Your task to perform on an android device: change keyboard looks Image 0: 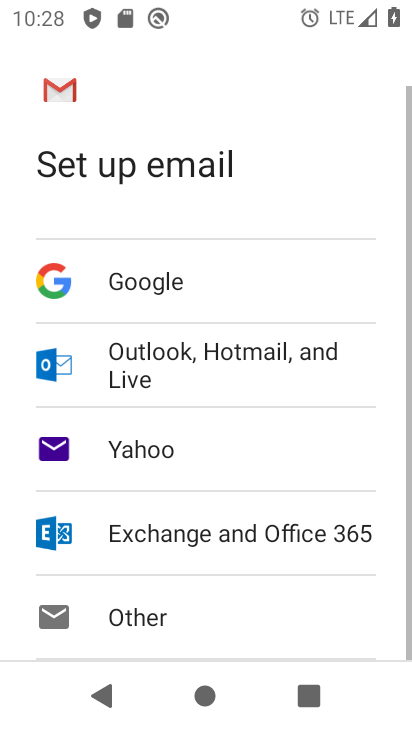
Step 0: press home button
Your task to perform on an android device: change keyboard looks Image 1: 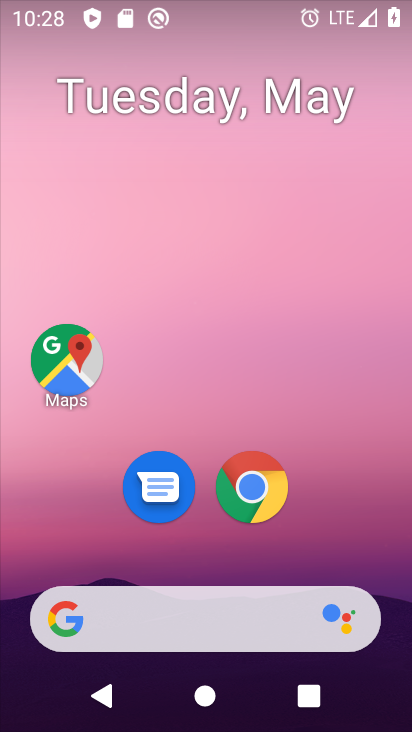
Step 1: drag from (214, 551) to (215, 231)
Your task to perform on an android device: change keyboard looks Image 2: 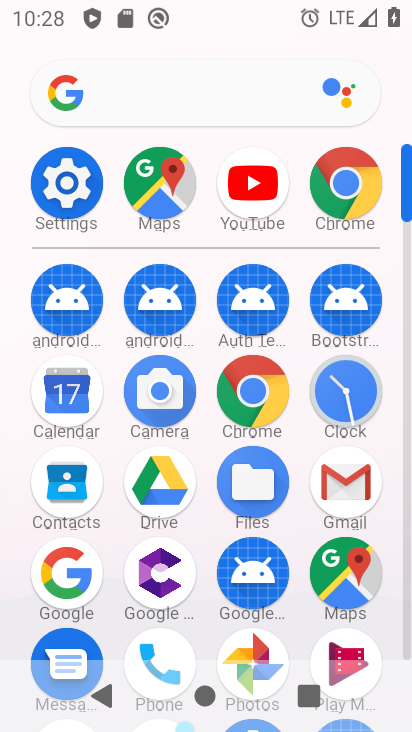
Step 2: click (56, 205)
Your task to perform on an android device: change keyboard looks Image 3: 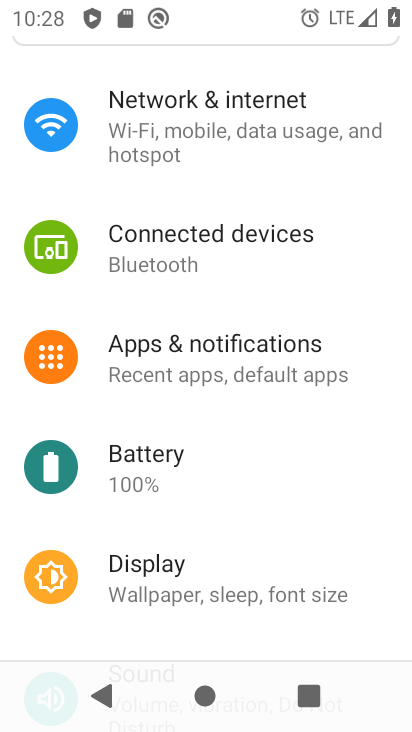
Step 3: drag from (214, 533) to (327, 10)
Your task to perform on an android device: change keyboard looks Image 4: 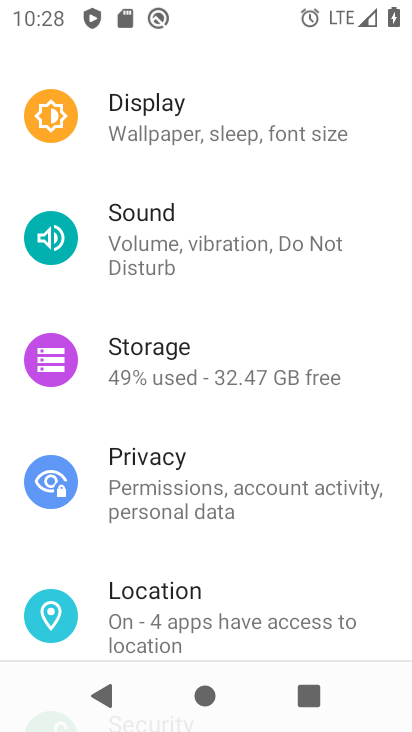
Step 4: drag from (186, 603) to (288, 13)
Your task to perform on an android device: change keyboard looks Image 5: 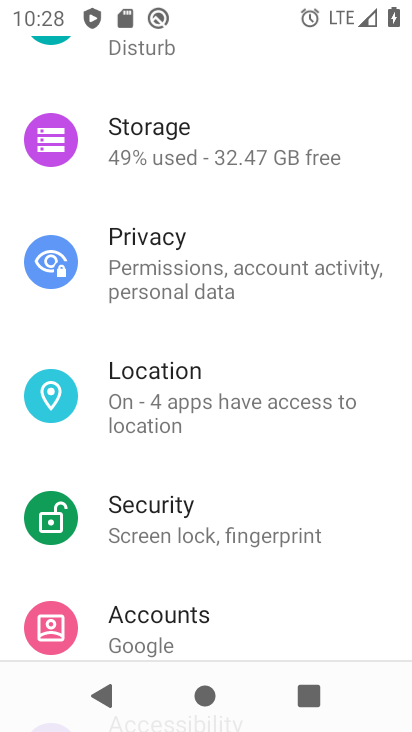
Step 5: drag from (186, 553) to (274, 60)
Your task to perform on an android device: change keyboard looks Image 6: 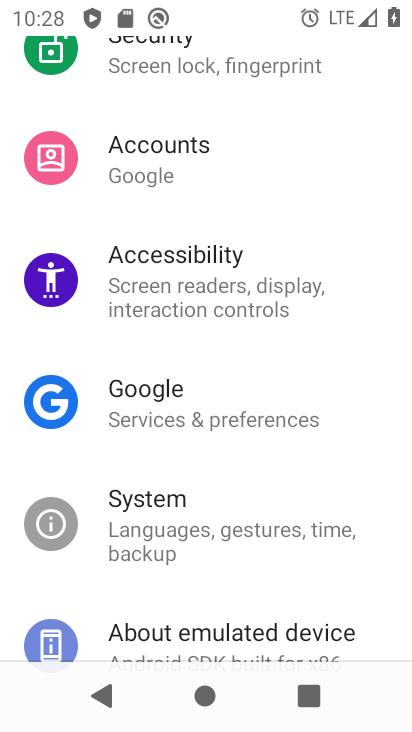
Step 6: click (133, 548)
Your task to perform on an android device: change keyboard looks Image 7: 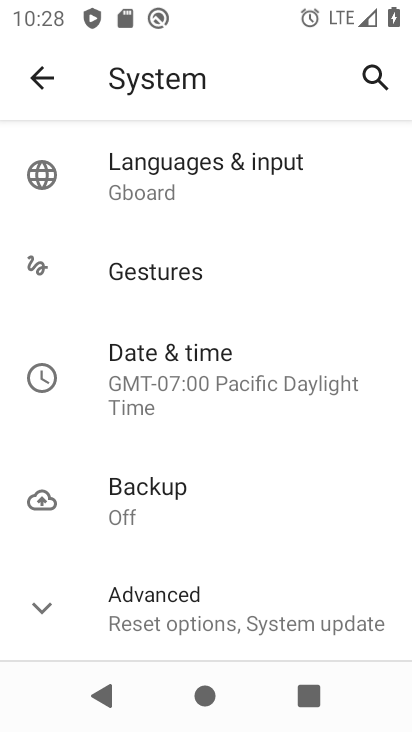
Step 7: drag from (179, 578) to (231, 2)
Your task to perform on an android device: change keyboard looks Image 8: 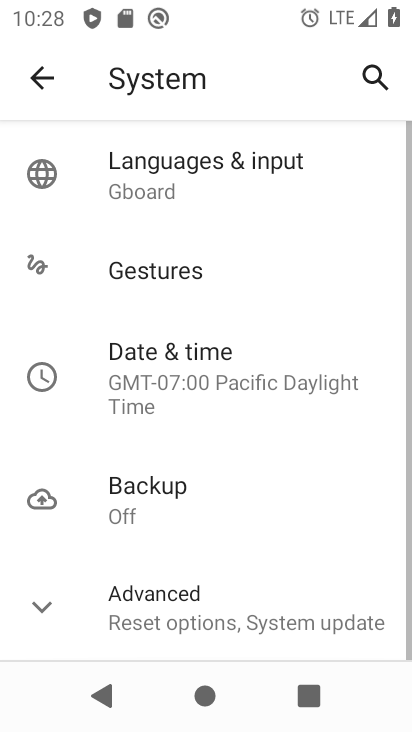
Step 8: click (231, 178)
Your task to perform on an android device: change keyboard looks Image 9: 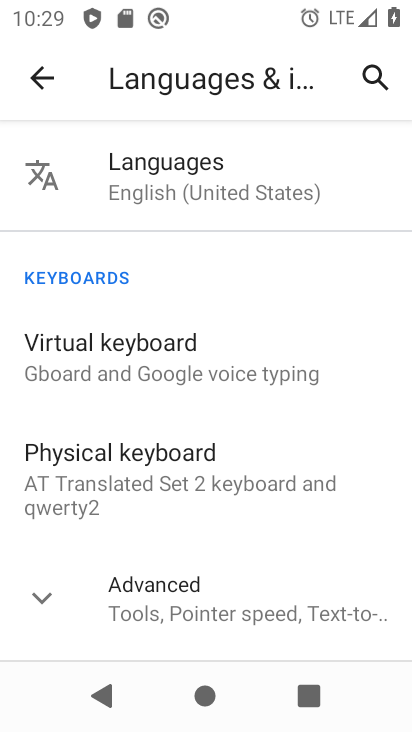
Step 9: click (133, 356)
Your task to perform on an android device: change keyboard looks Image 10: 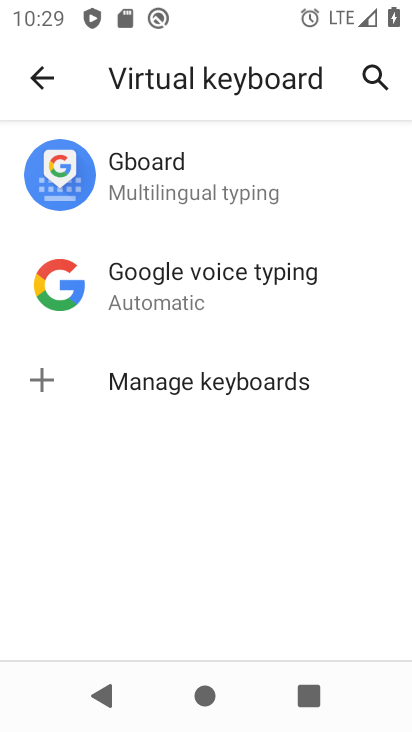
Step 10: click (196, 173)
Your task to perform on an android device: change keyboard looks Image 11: 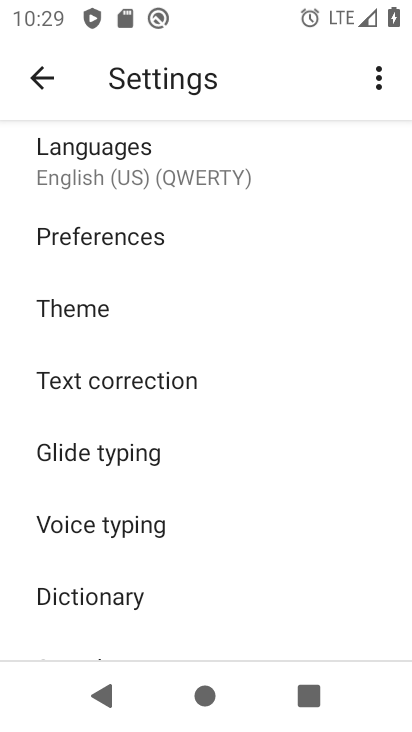
Step 11: click (124, 315)
Your task to perform on an android device: change keyboard looks Image 12: 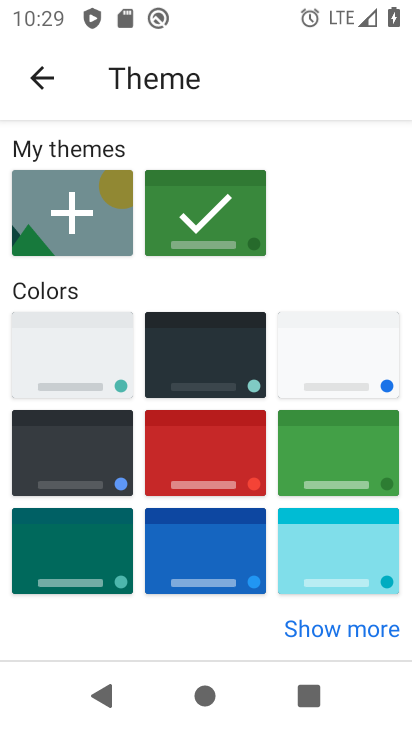
Step 12: click (190, 361)
Your task to perform on an android device: change keyboard looks Image 13: 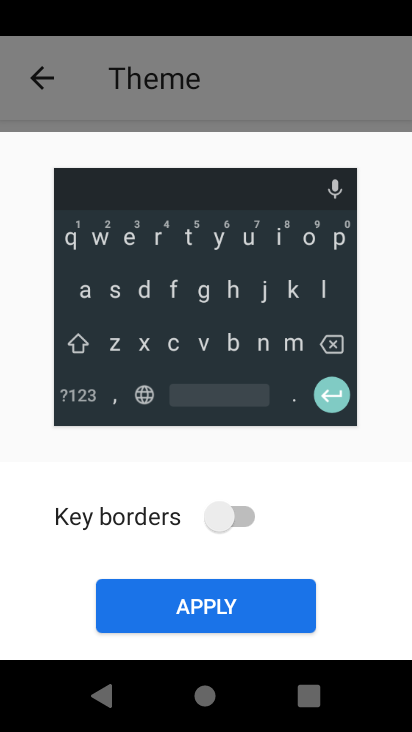
Step 13: click (181, 609)
Your task to perform on an android device: change keyboard looks Image 14: 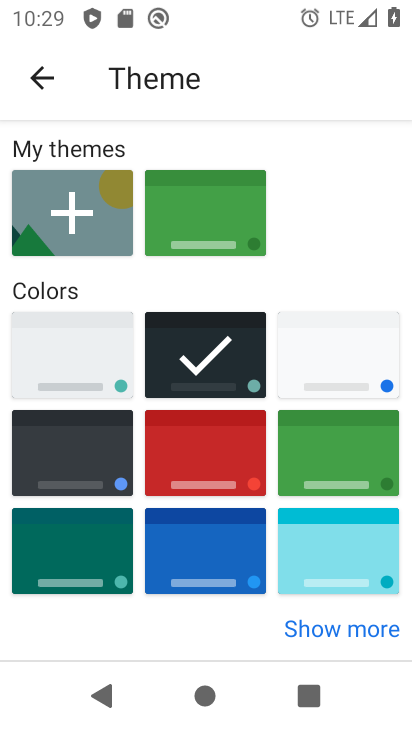
Step 14: task complete